Your task to perform on an android device: Check the news Image 0: 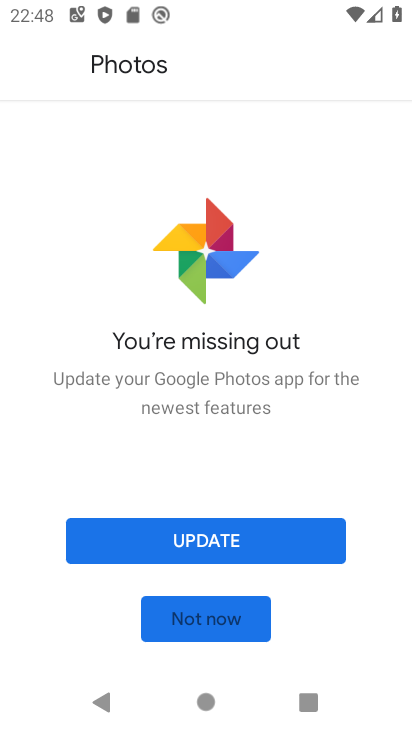
Step 0: press home button
Your task to perform on an android device: Check the news Image 1: 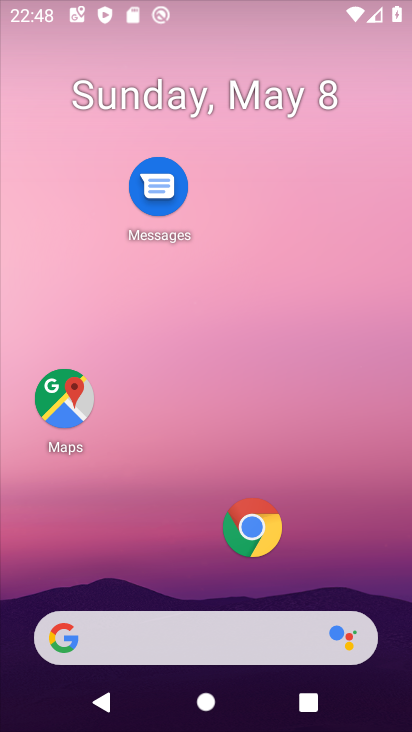
Step 1: drag from (196, 534) to (188, 39)
Your task to perform on an android device: Check the news Image 2: 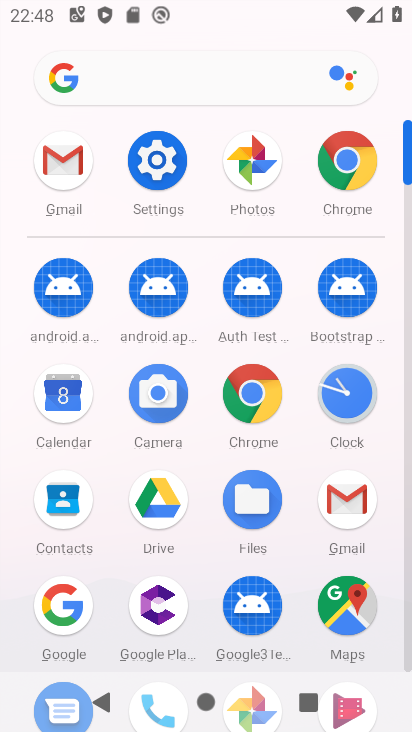
Step 2: click (63, 606)
Your task to perform on an android device: Check the news Image 3: 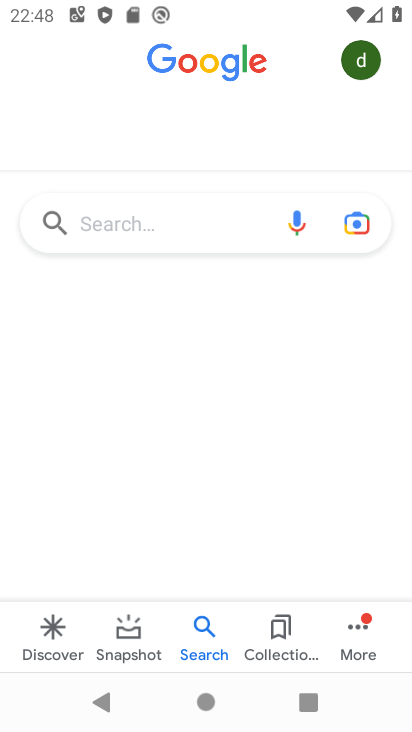
Step 3: click (160, 221)
Your task to perform on an android device: Check the news Image 4: 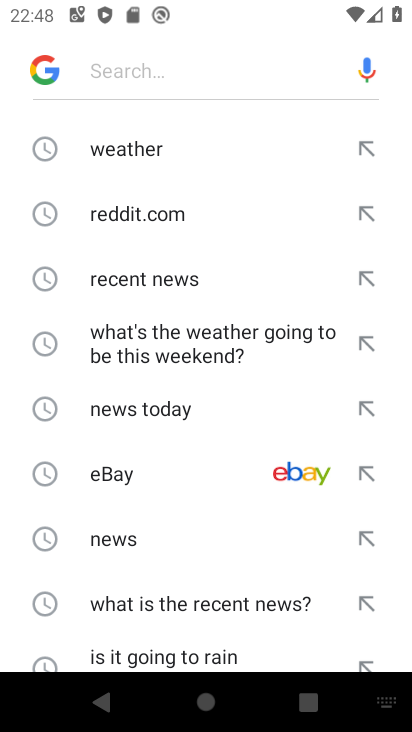
Step 4: type "check the news"
Your task to perform on an android device: Check the news Image 5: 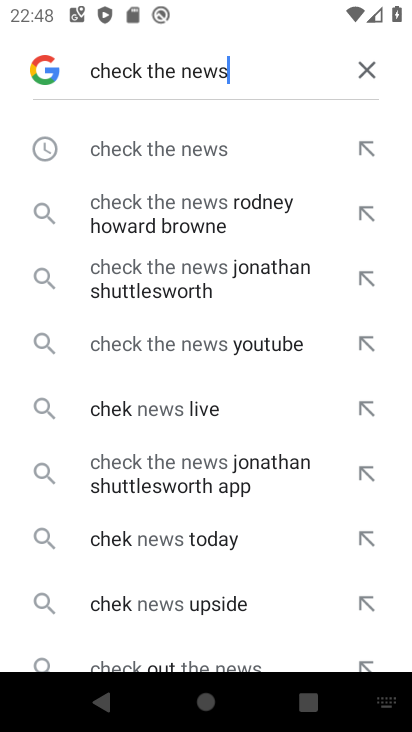
Step 5: click (205, 130)
Your task to perform on an android device: Check the news Image 6: 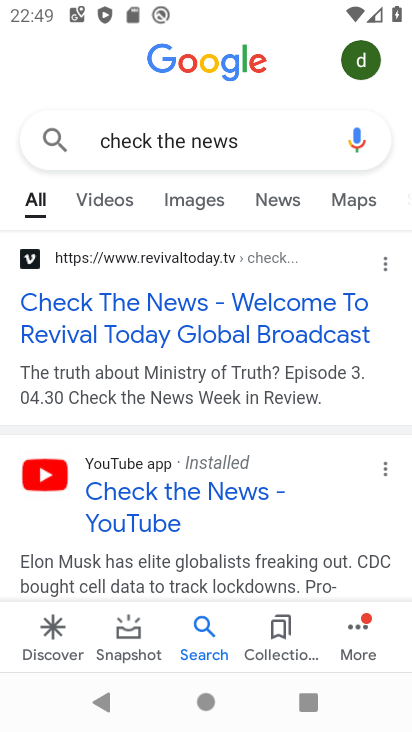
Step 6: task complete